Your task to perform on an android device: set an alarm Image 0: 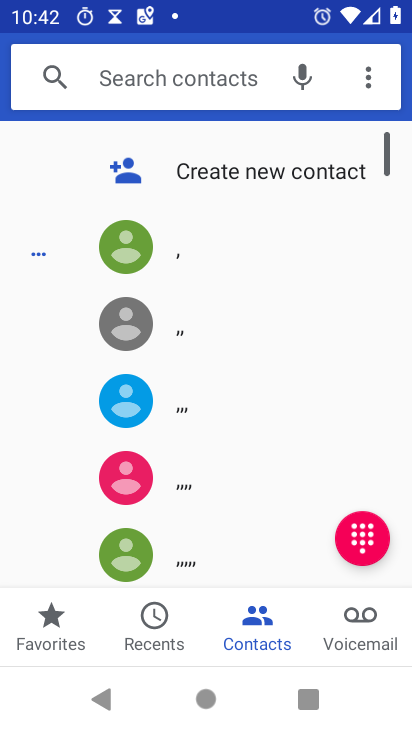
Step 0: press home button
Your task to perform on an android device: set an alarm Image 1: 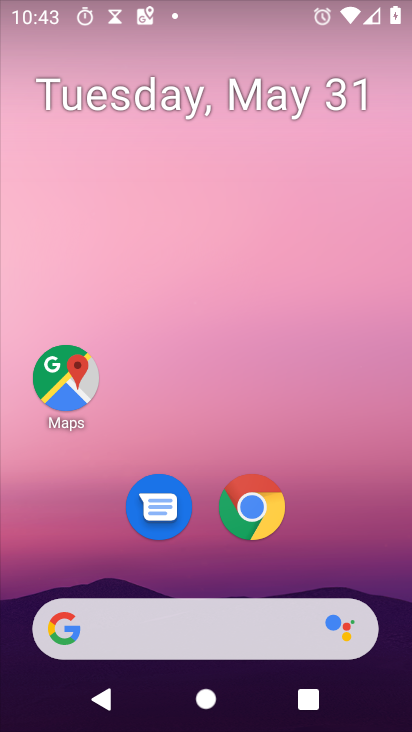
Step 1: drag from (7, 164) to (236, 160)
Your task to perform on an android device: set an alarm Image 2: 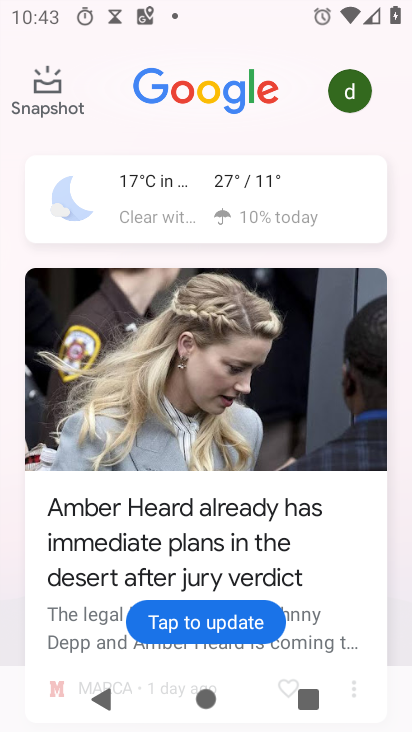
Step 2: press home button
Your task to perform on an android device: set an alarm Image 3: 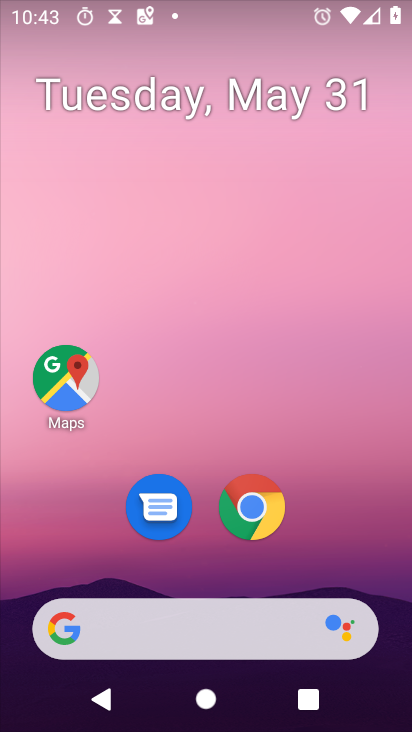
Step 3: drag from (19, 606) to (311, 162)
Your task to perform on an android device: set an alarm Image 4: 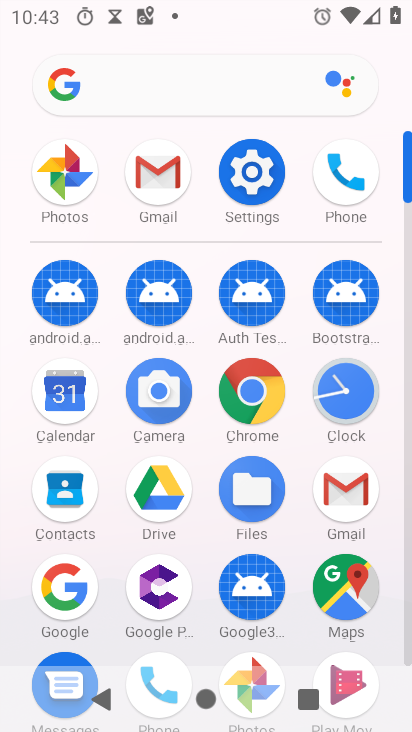
Step 4: click (339, 394)
Your task to perform on an android device: set an alarm Image 5: 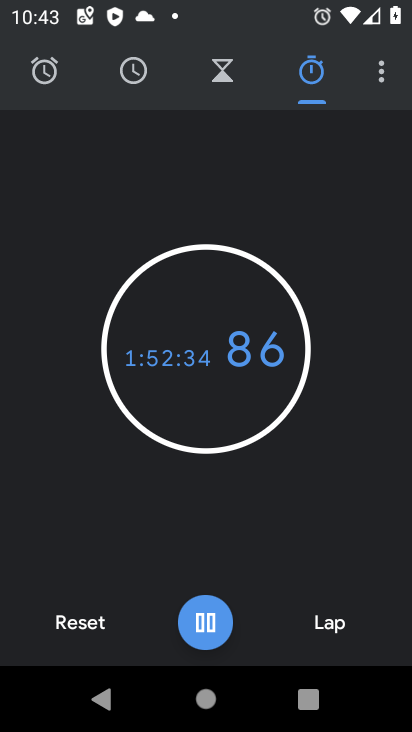
Step 5: click (33, 80)
Your task to perform on an android device: set an alarm Image 6: 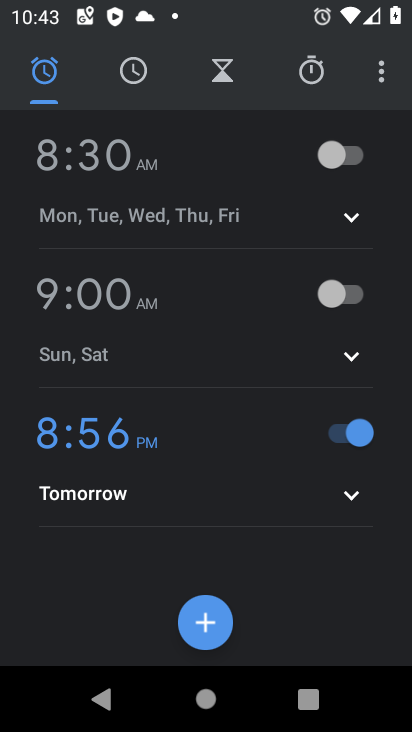
Step 6: click (207, 624)
Your task to perform on an android device: set an alarm Image 7: 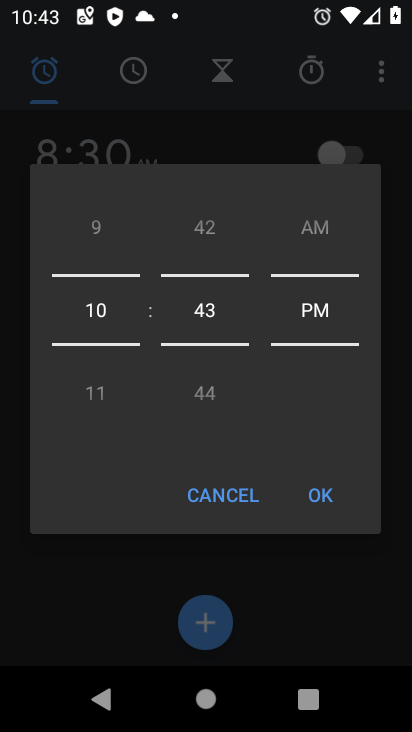
Step 7: click (321, 490)
Your task to perform on an android device: set an alarm Image 8: 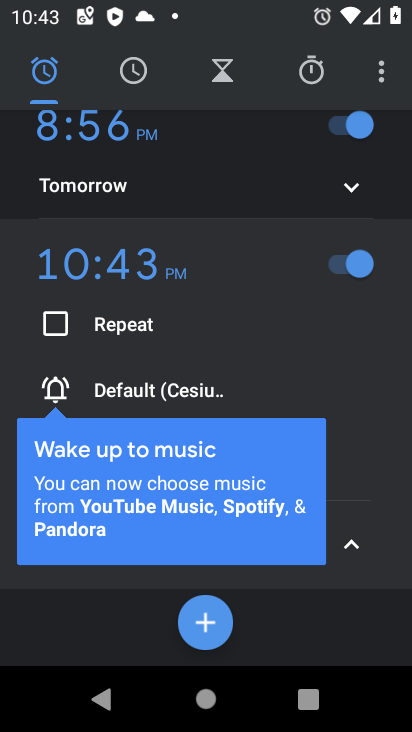
Step 8: task complete